Your task to perform on an android device: Go to location settings Image 0: 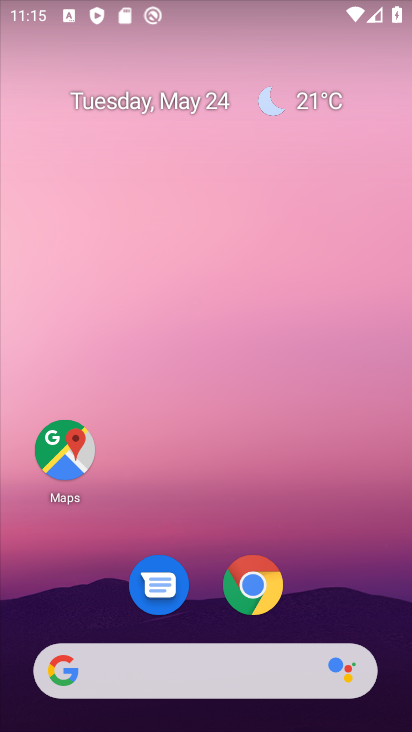
Step 0: drag from (255, 489) to (259, 5)
Your task to perform on an android device: Go to location settings Image 1: 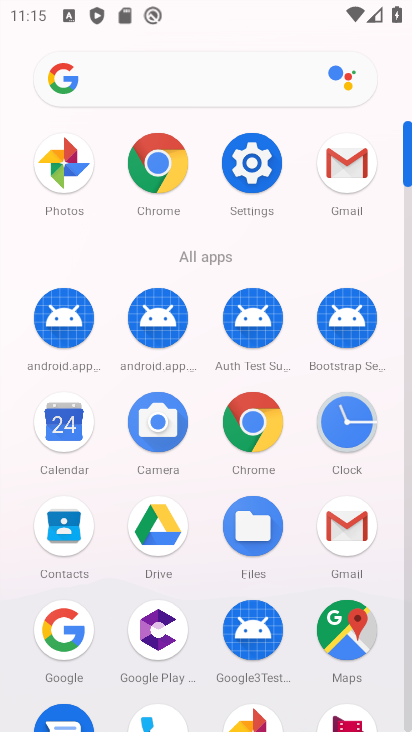
Step 1: click (261, 172)
Your task to perform on an android device: Go to location settings Image 2: 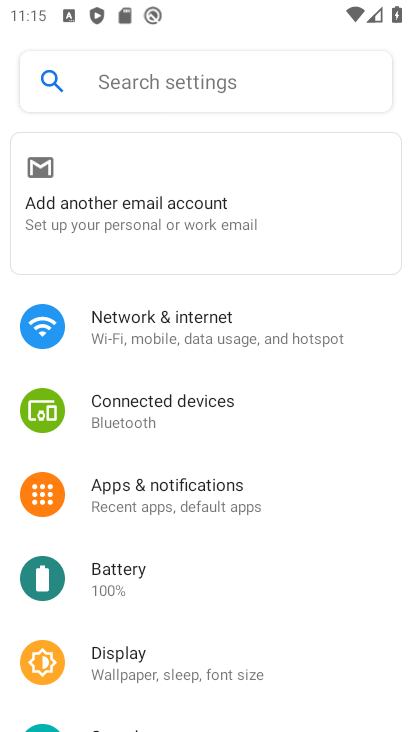
Step 2: drag from (233, 586) to (291, 192)
Your task to perform on an android device: Go to location settings Image 3: 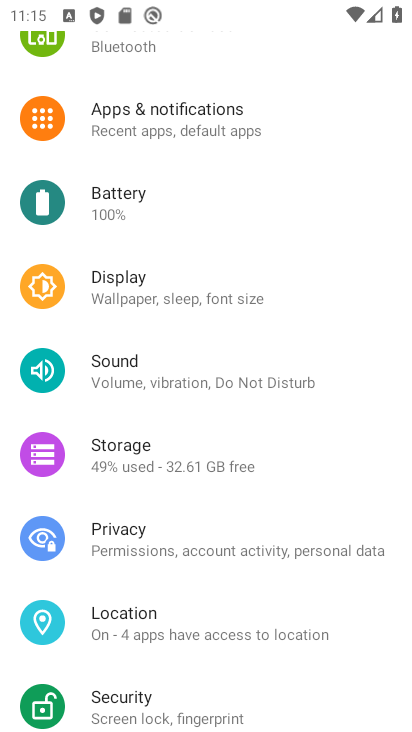
Step 3: click (203, 622)
Your task to perform on an android device: Go to location settings Image 4: 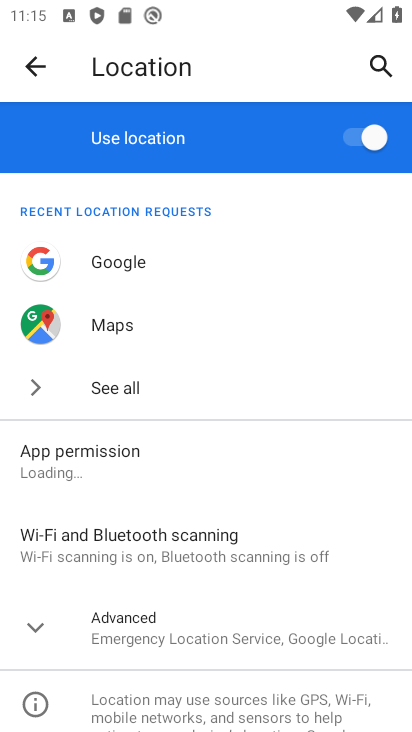
Step 4: task complete